Your task to perform on an android device: allow cookies in the chrome app Image 0: 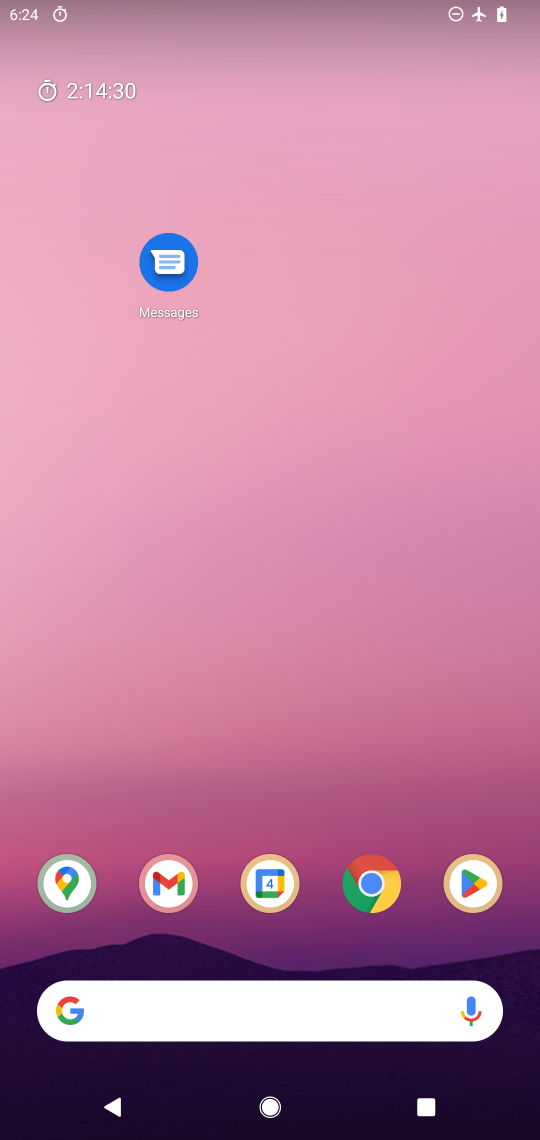
Step 0: click (374, 881)
Your task to perform on an android device: allow cookies in the chrome app Image 1: 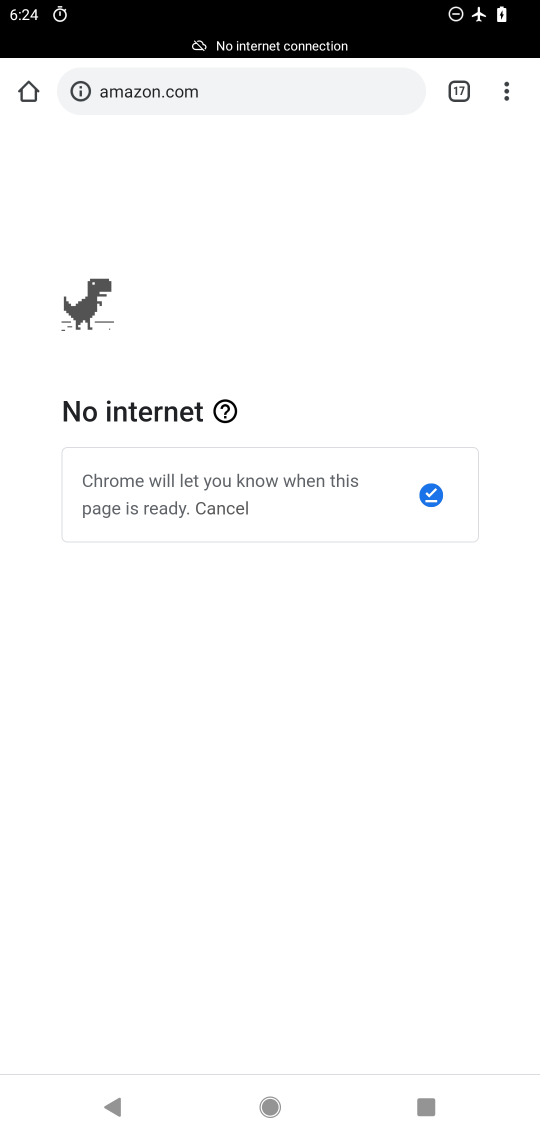
Step 1: click (506, 98)
Your task to perform on an android device: allow cookies in the chrome app Image 2: 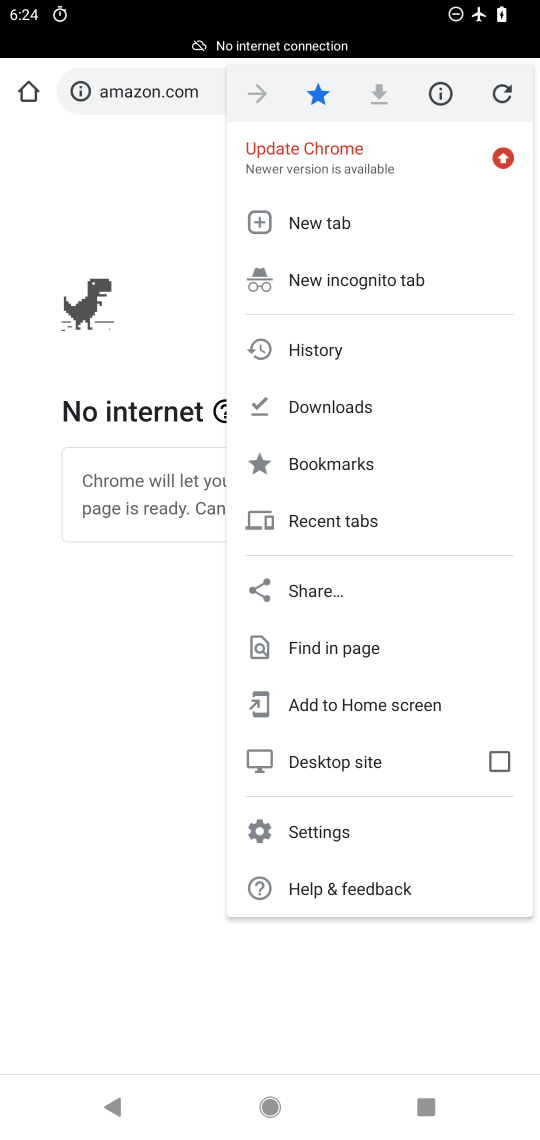
Step 2: click (313, 835)
Your task to perform on an android device: allow cookies in the chrome app Image 3: 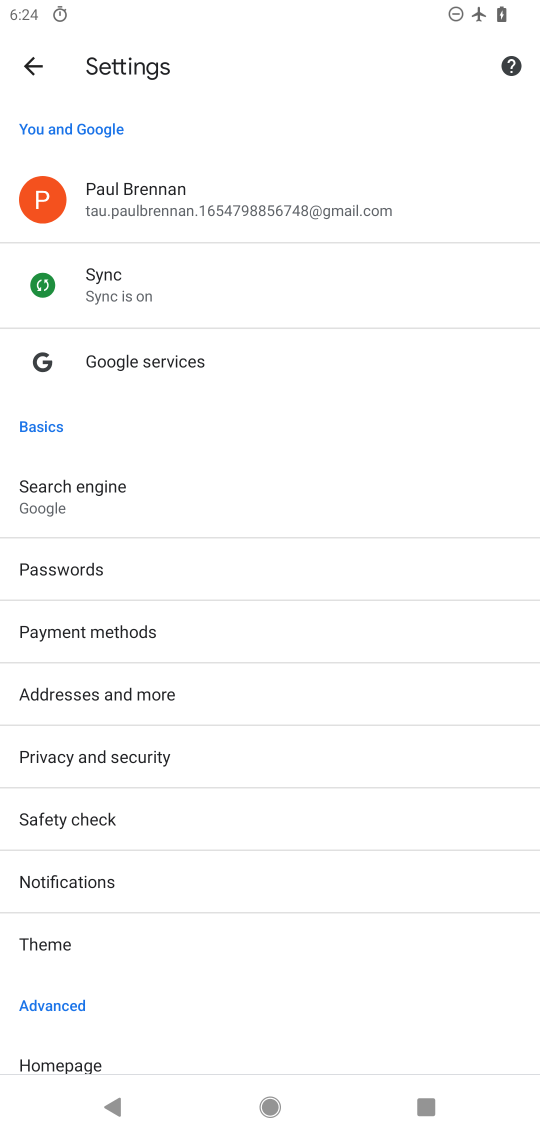
Step 3: drag from (90, 994) to (121, 523)
Your task to perform on an android device: allow cookies in the chrome app Image 4: 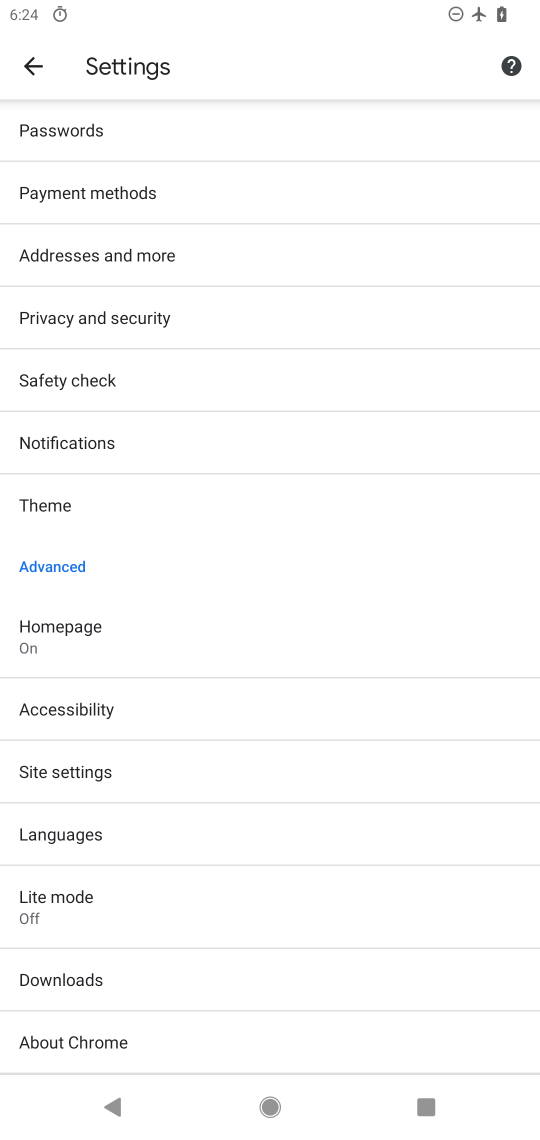
Step 4: click (75, 763)
Your task to perform on an android device: allow cookies in the chrome app Image 5: 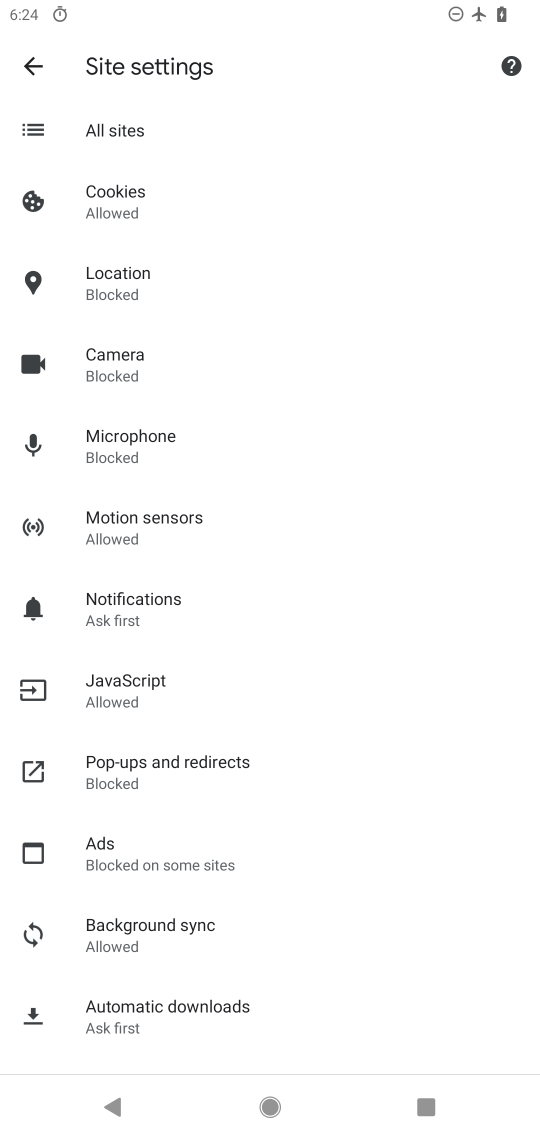
Step 5: click (105, 203)
Your task to perform on an android device: allow cookies in the chrome app Image 6: 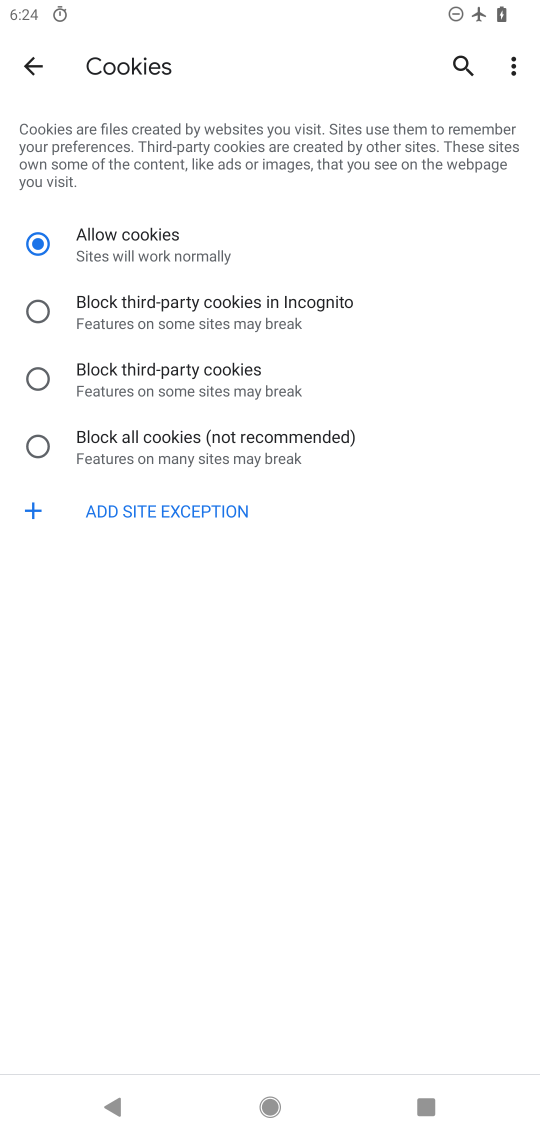
Step 6: task complete